Your task to perform on an android device: Open the web browser Image 0: 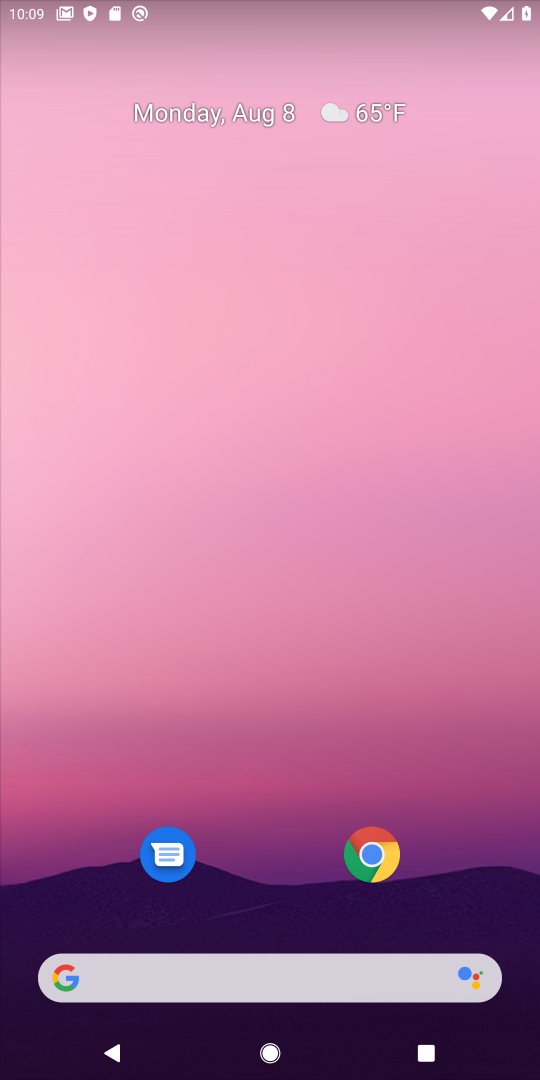
Step 0: click (247, 972)
Your task to perform on an android device: Open the web browser Image 1: 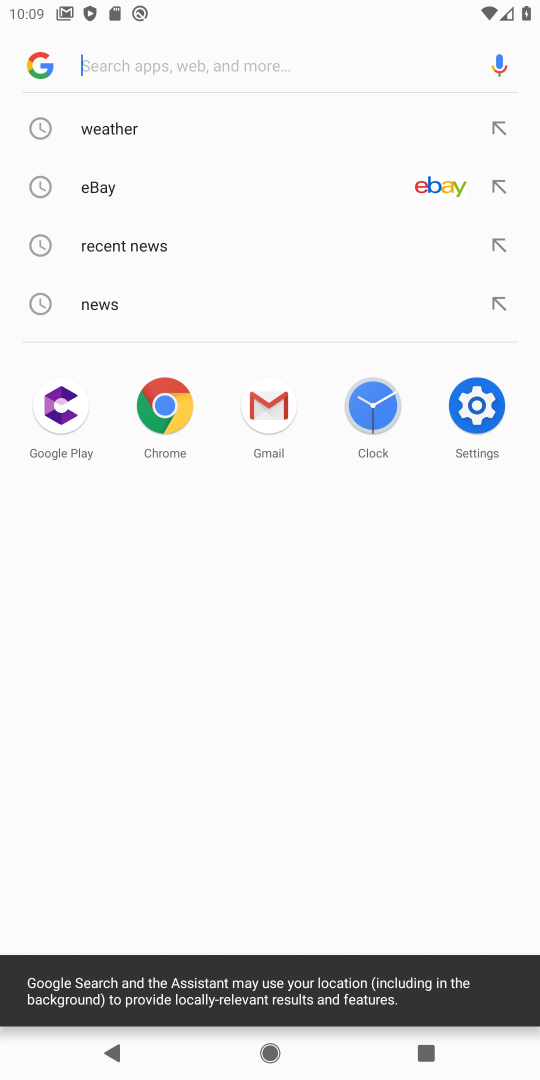
Step 1: click (247, 972)
Your task to perform on an android device: Open the web browser Image 2: 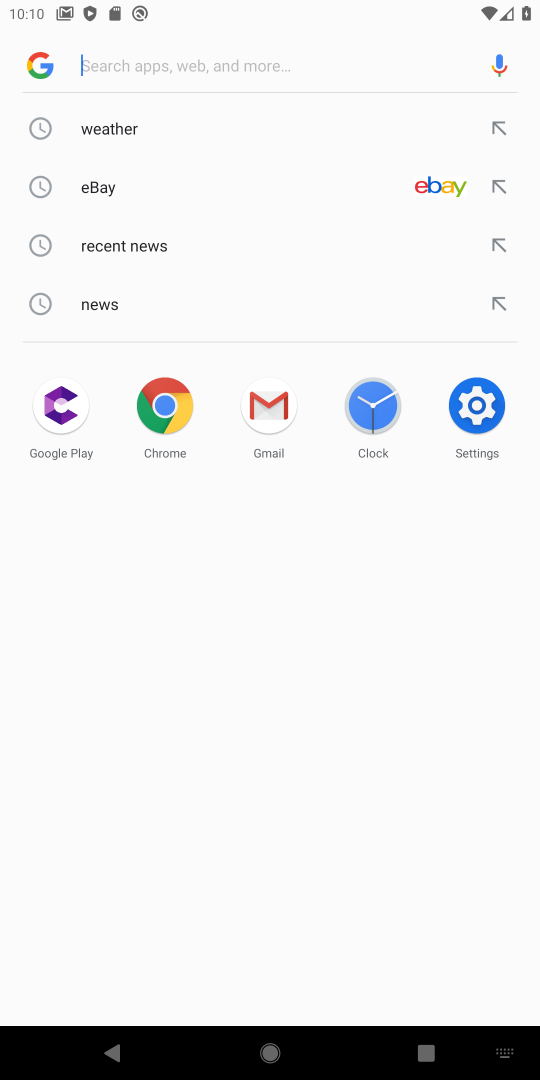
Step 2: task complete